Your task to perform on an android device: toggle javascript in the chrome app Image 0: 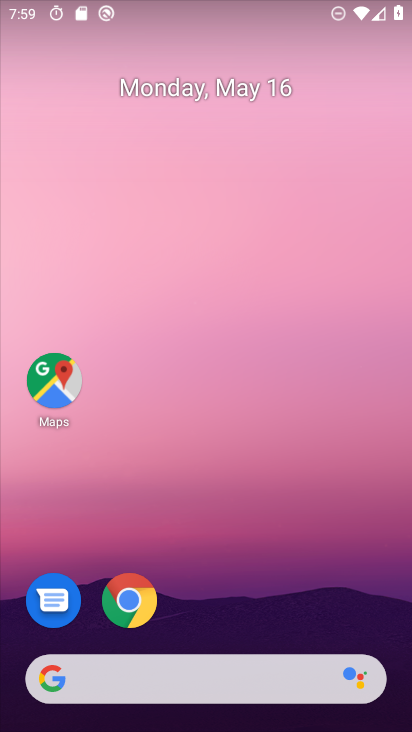
Step 0: click (126, 610)
Your task to perform on an android device: toggle javascript in the chrome app Image 1: 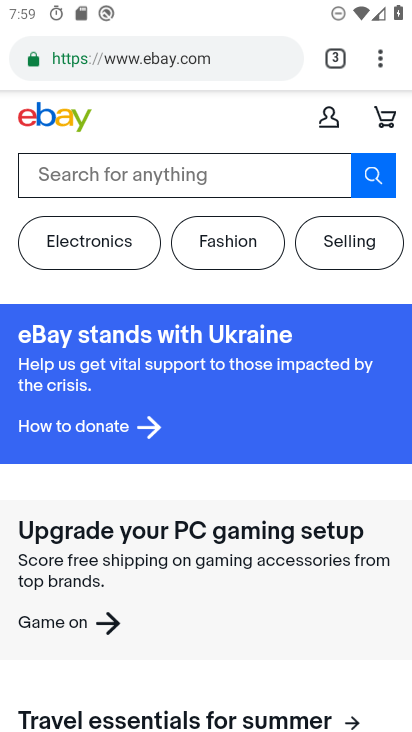
Step 1: drag from (375, 55) to (225, 623)
Your task to perform on an android device: toggle javascript in the chrome app Image 2: 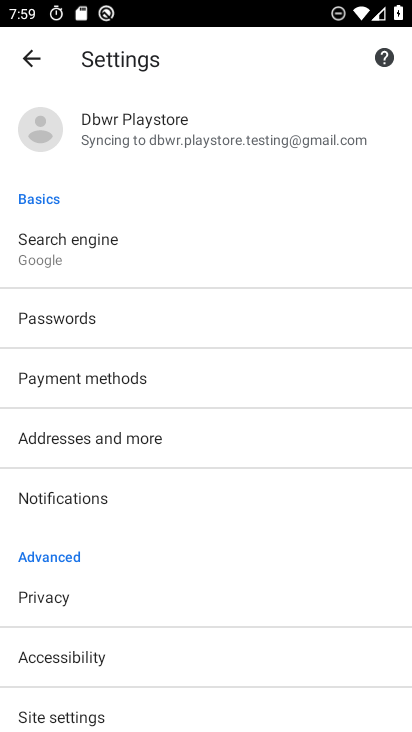
Step 2: click (81, 711)
Your task to perform on an android device: toggle javascript in the chrome app Image 3: 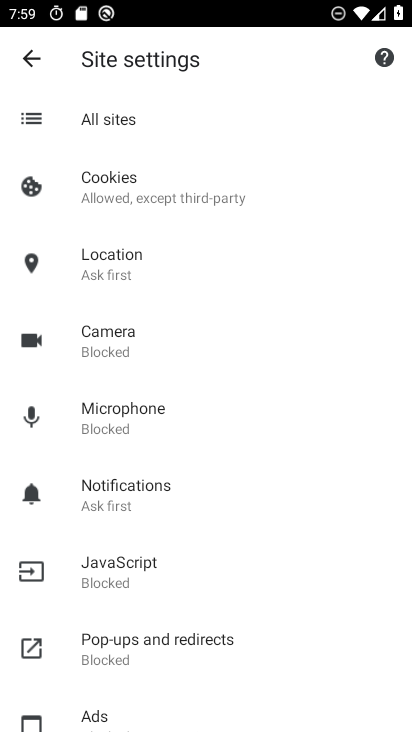
Step 3: click (114, 567)
Your task to perform on an android device: toggle javascript in the chrome app Image 4: 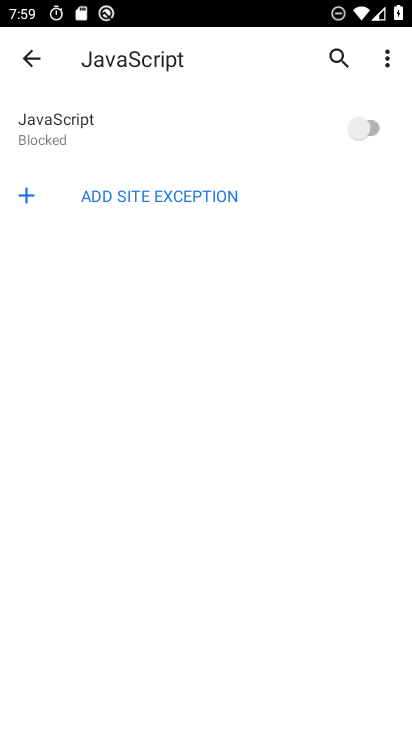
Step 4: click (371, 127)
Your task to perform on an android device: toggle javascript in the chrome app Image 5: 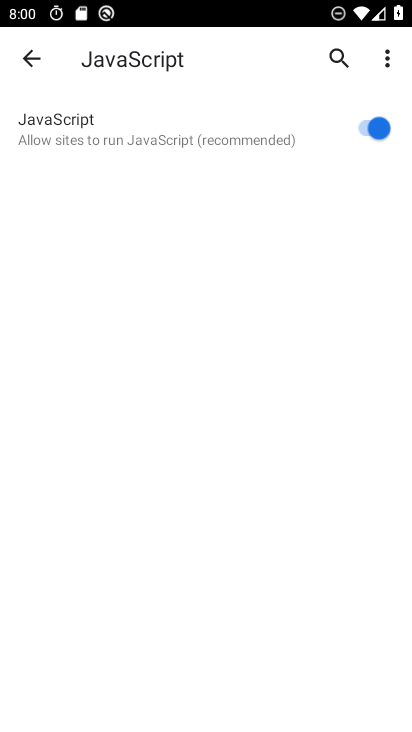
Step 5: task complete